Your task to perform on an android device: move an email to a new category in the gmail app Image 0: 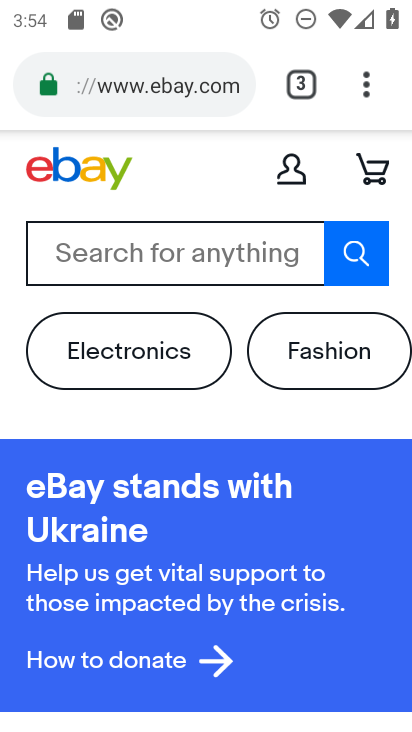
Step 0: click (243, 540)
Your task to perform on an android device: move an email to a new category in the gmail app Image 1: 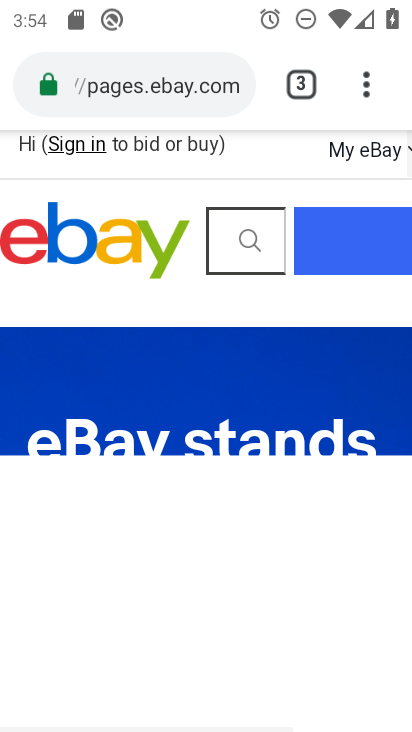
Step 1: press back button
Your task to perform on an android device: move an email to a new category in the gmail app Image 2: 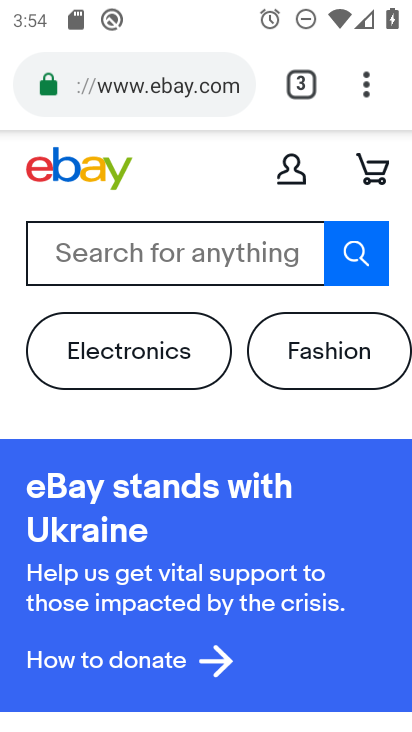
Step 2: press back button
Your task to perform on an android device: move an email to a new category in the gmail app Image 3: 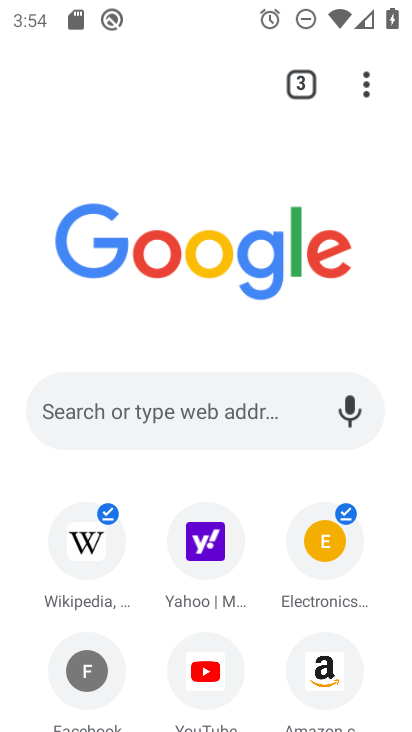
Step 3: press home button
Your task to perform on an android device: move an email to a new category in the gmail app Image 4: 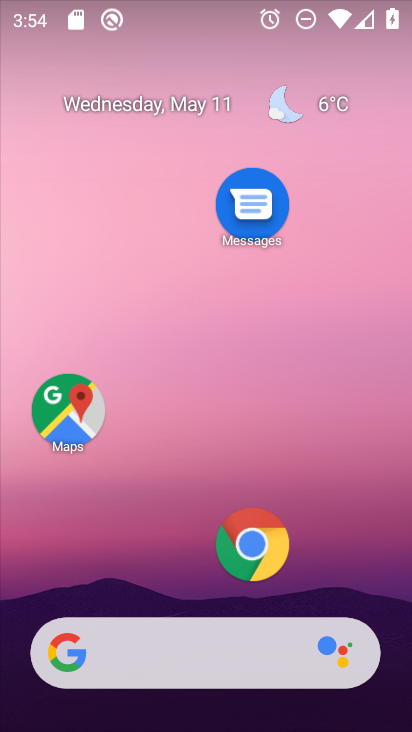
Step 4: drag from (162, 567) to (331, 2)
Your task to perform on an android device: move an email to a new category in the gmail app Image 5: 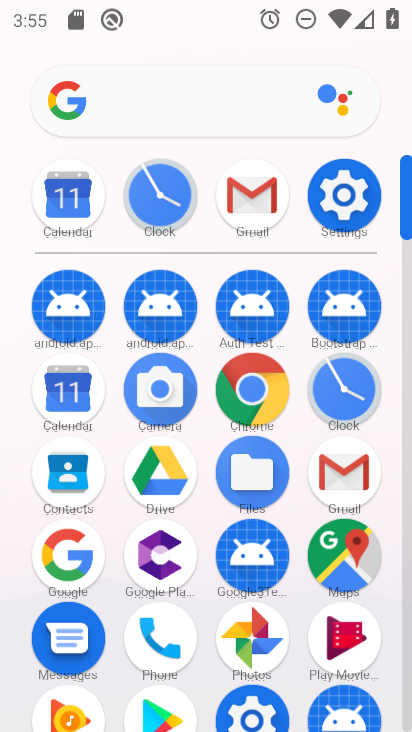
Step 5: click (248, 189)
Your task to perform on an android device: move an email to a new category in the gmail app Image 6: 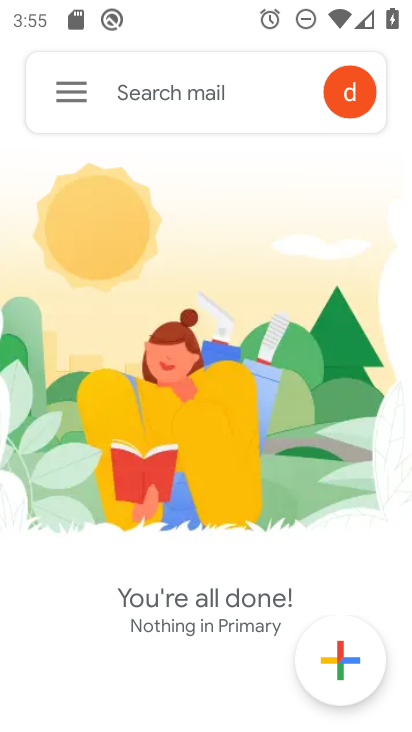
Step 6: click (59, 84)
Your task to perform on an android device: move an email to a new category in the gmail app Image 7: 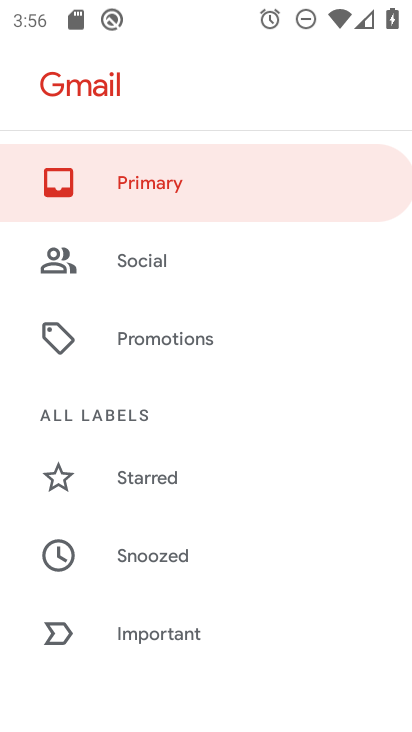
Step 7: drag from (165, 558) to (340, 99)
Your task to perform on an android device: move an email to a new category in the gmail app Image 8: 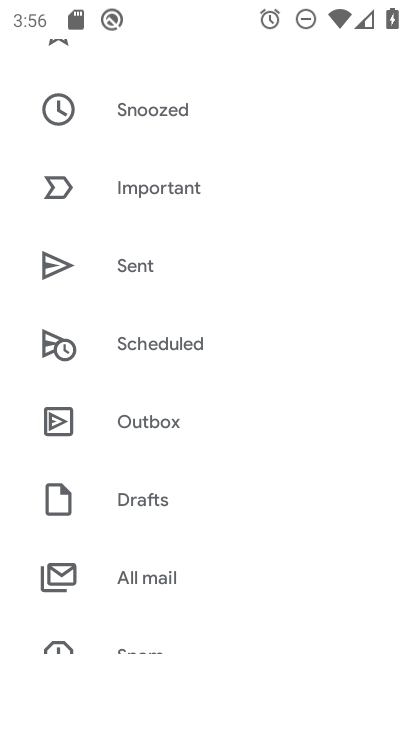
Step 8: click (145, 560)
Your task to perform on an android device: move an email to a new category in the gmail app Image 9: 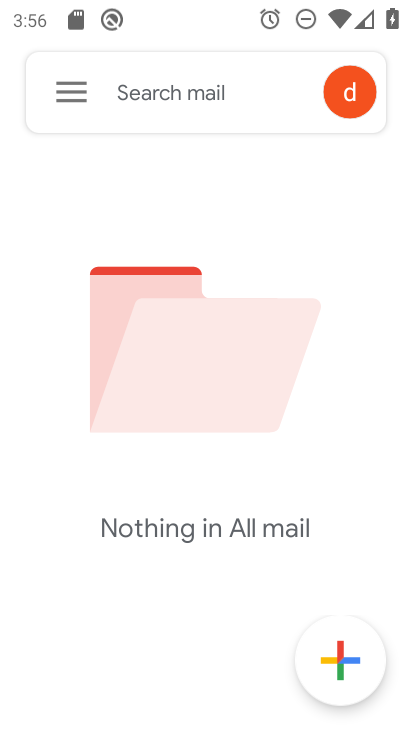
Step 9: task complete